Your task to perform on an android device: turn on priority inbox in the gmail app Image 0: 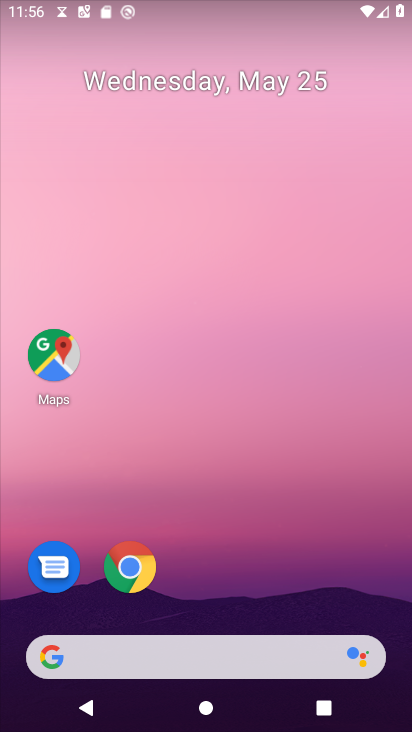
Step 0: click (136, 566)
Your task to perform on an android device: turn on priority inbox in the gmail app Image 1: 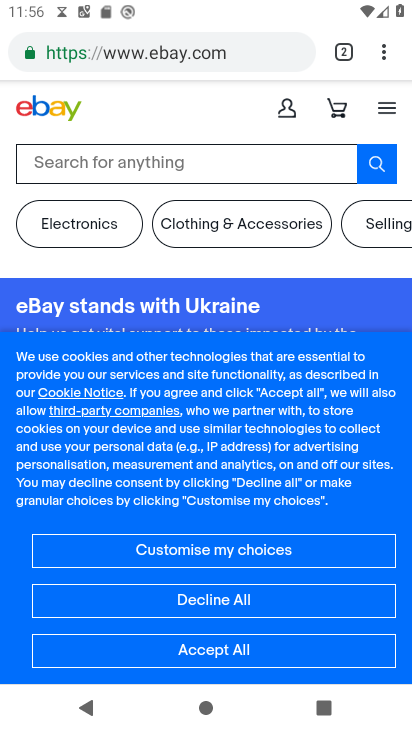
Step 1: press home button
Your task to perform on an android device: turn on priority inbox in the gmail app Image 2: 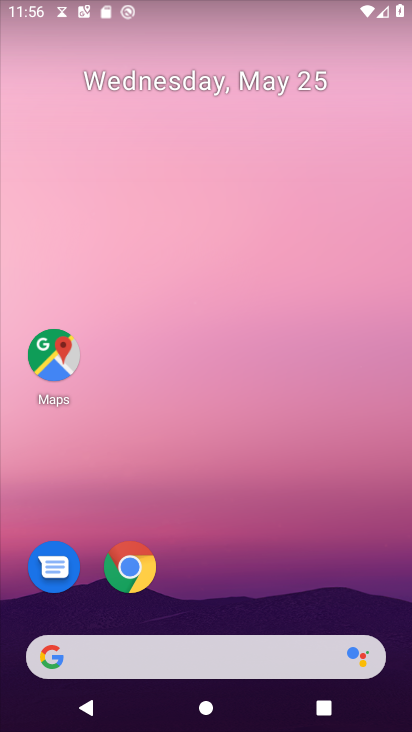
Step 2: drag from (220, 548) to (137, 54)
Your task to perform on an android device: turn on priority inbox in the gmail app Image 3: 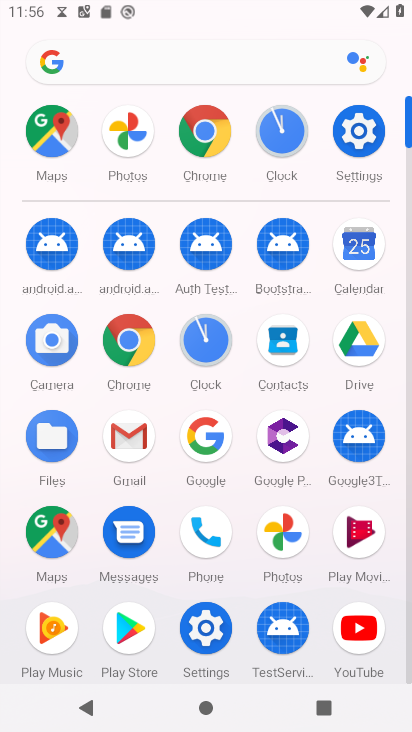
Step 3: click (118, 439)
Your task to perform on an android device: turn on priority inbox in the gmail app Image 4: 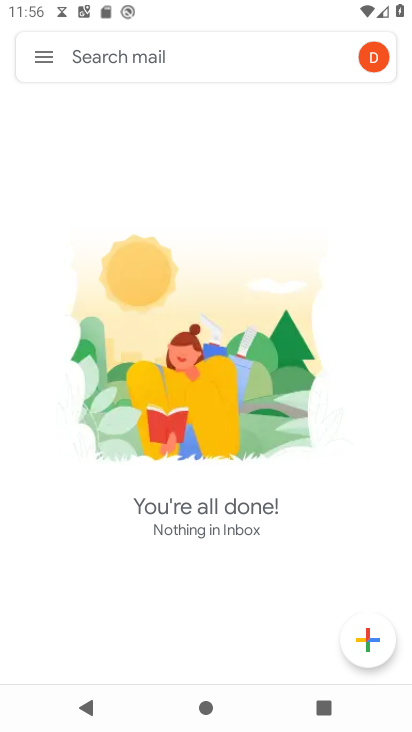
Step 4: click (53, 55)
Your task to perform on an android device: turn on priority inbox in the gmail app Image 5: 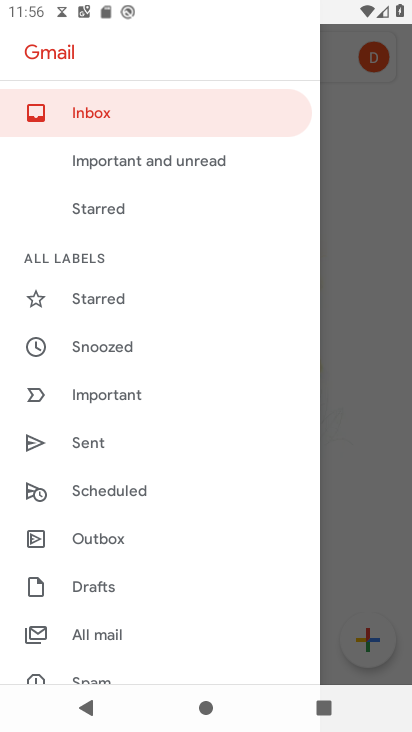
Step 5: drag from (99, 619) to (98, 95)
Your task to perform on an android device: turn on priority inbox in the gmail app Image 6: 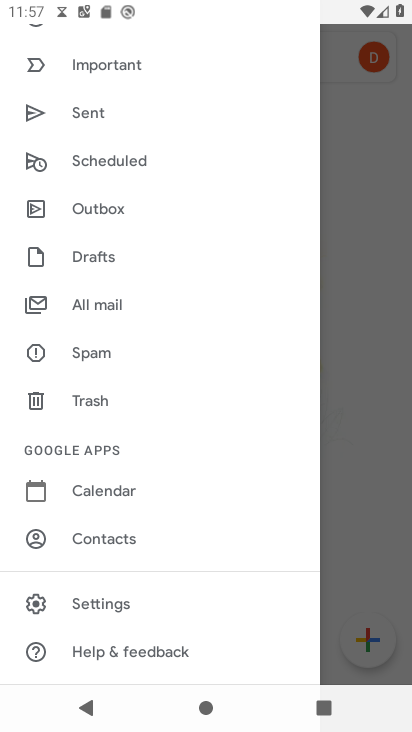
Step 6: drag from (146, 401) to (142, 71)
Your task to perform on an android device: turn on priority inbox in the gmail app Image 7: 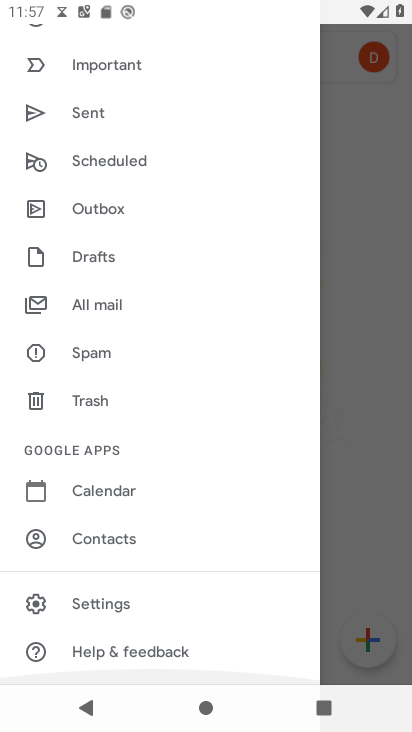
Step 7: drag from (142, 70) to (158, 542)
Your task to perform on an android device: turn on priority inbox in the gmail app Image 8: 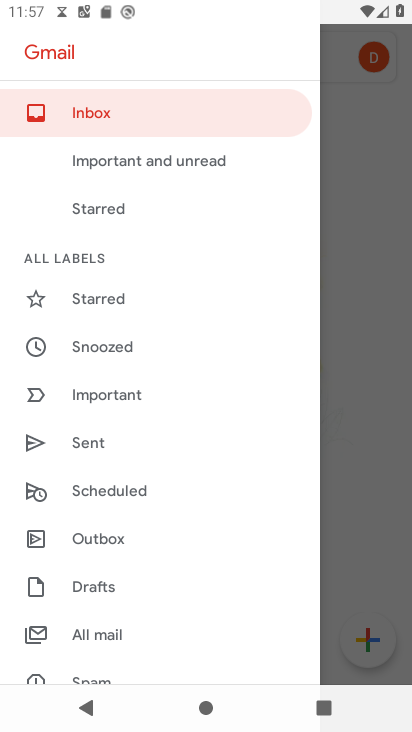
Step 8: drag from (120, 590) to (116, 100)
Your task to perform on an android device: turn on priority inbox in the gmail app Image 9: 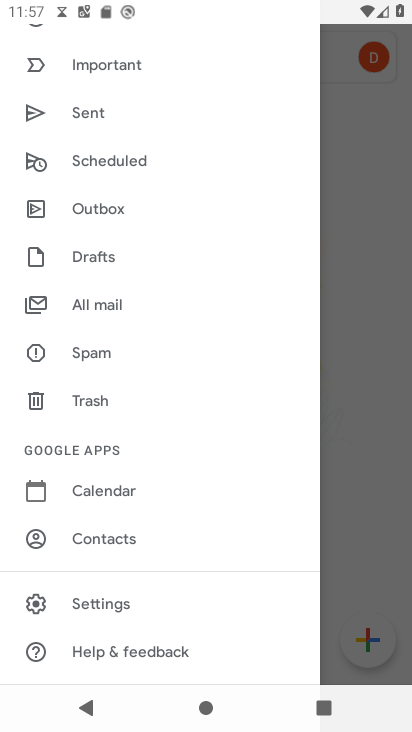
Step 9: click (104, 593)
Your task to perform on an android device: turn on priority inbox in the gmail app Image 10: 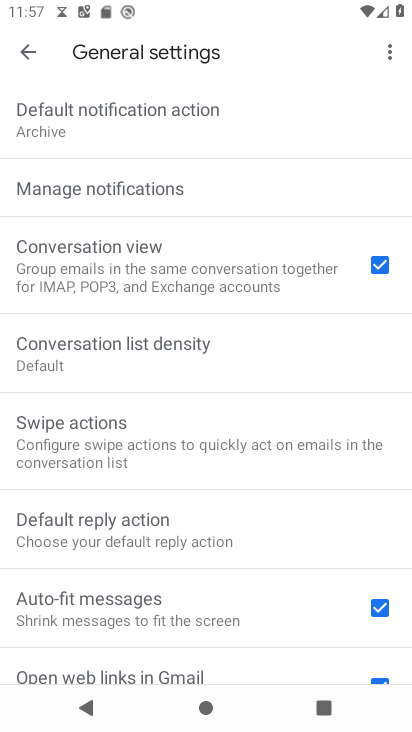
Step 10: task complete